Your task to perform on an android device: turn pop-ups off in chrome Image 0: 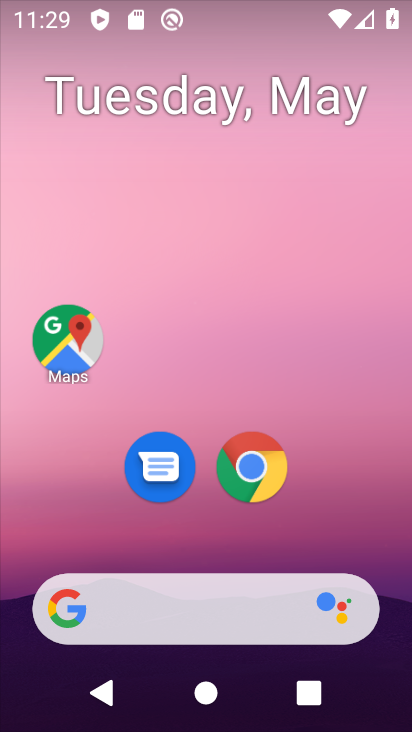
Step 0: drag from (191, 538) to (387, 78)
Your task to perform on an android device: turn pop-ups off in chrome Image 1: 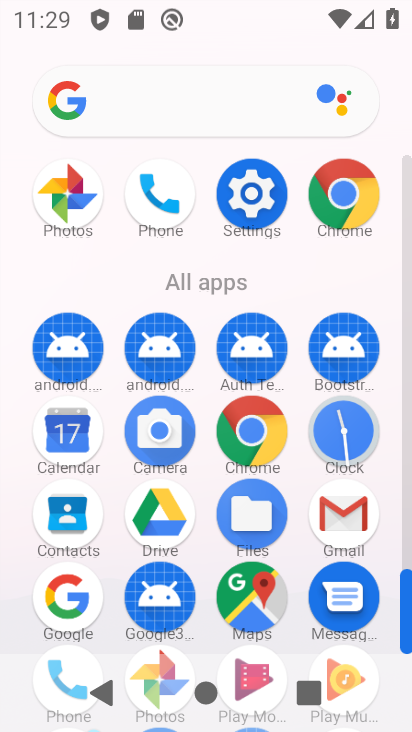
Step 1: click (246, 419)
Your task to perform on an android device: turn pop-ups off in chrome Image 2: 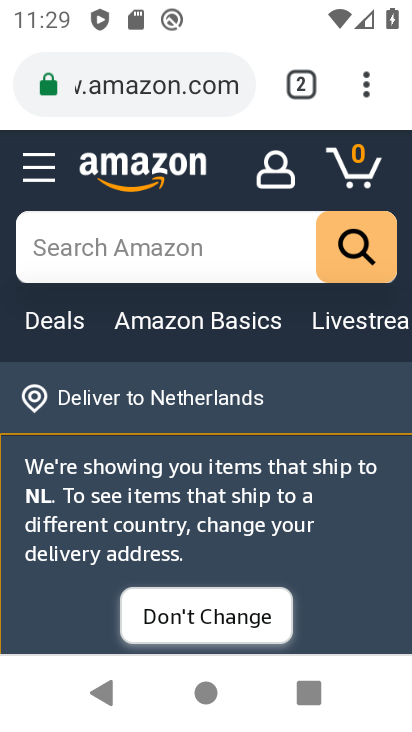
Step 2: click (357, 89)
Your task to perform on an android device: turn pop-ups off in chrome Image 3: 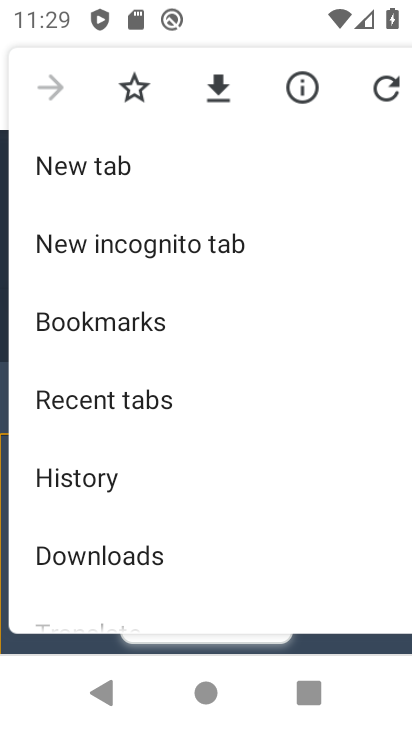
Step 3: drag from (149, 510) to (122, 148)
Your task to perform on an android device: turn pop-ups off in chrome Image 4: 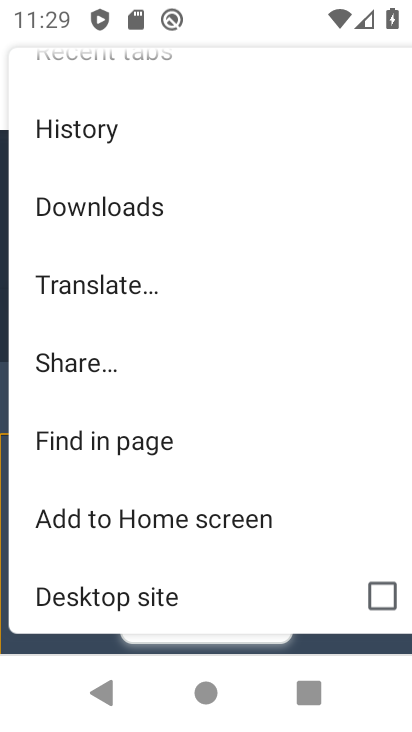
Step 4: drag from (112, 542) to (77, 129)
Your task to perform on an android device: turn pop-ups off in chrome Image 5: 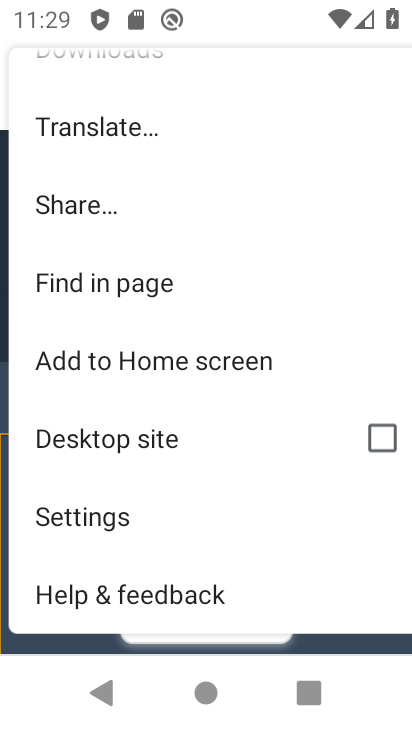
Step 5: click (73, 515)
Your task to perform on an android device: turn pop-ups off in chrome Image 6: 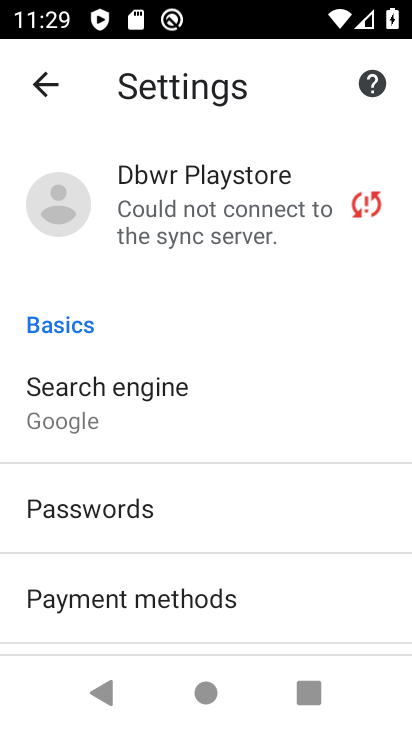
Step 6: drag from (202, 447) to (136, 51)
Your task to perform on an android device: turn pop-ups off in chrome Image 7: 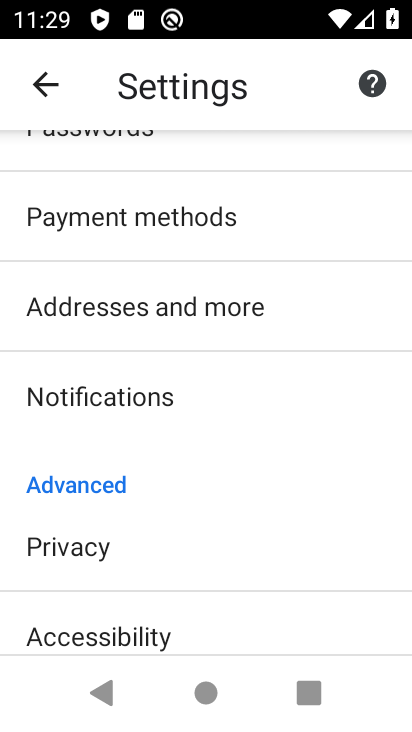
Step 7: drag from (137, 534) to (100, 200)
Your task to perform on an android device: turn pop-ups off in chrome Image 8: 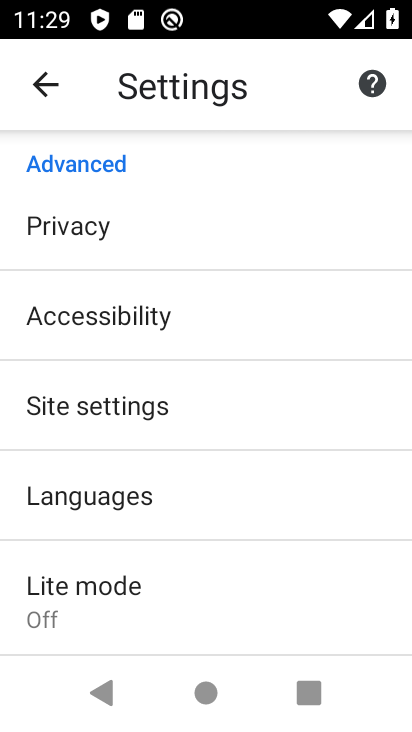
Step 8: click (94, 413)
Your task to perform on an android device: turn pop-ups off in chrome Image 9: 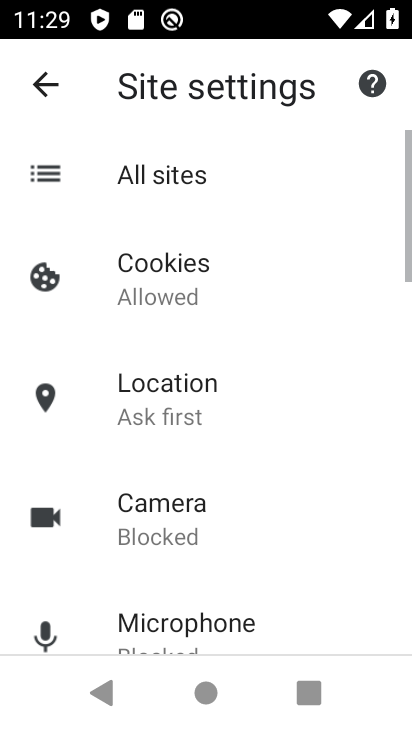
Step 9: drag from (209, 506) to (219, 209)
Your task to perform on an android device: turn pop-ups off in chrome Image 10: 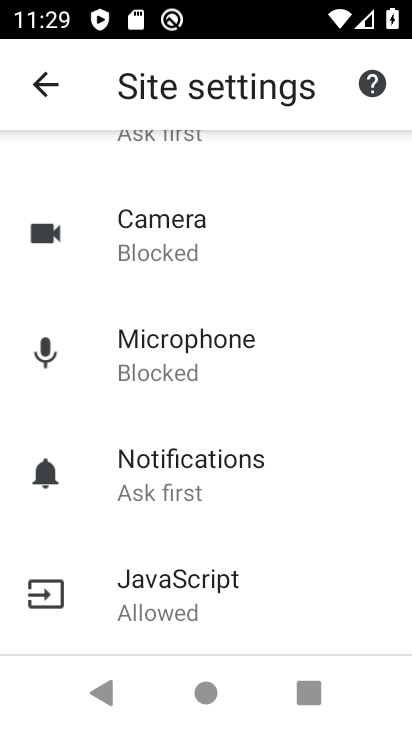
Step 10: drag from (211, 516) to (182, 189)
Your task to perform on an android device: turn pop-ups off in chrome Image 11: 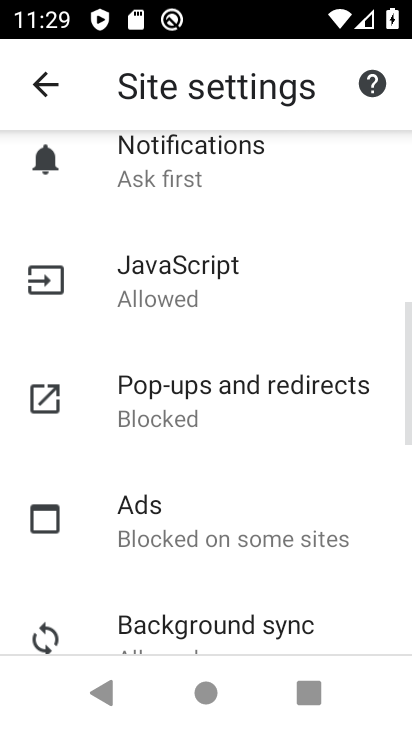
Step 11: click (141, 428)
Your task to perform on an android device: turn pop-ups off in chrome Image 12: 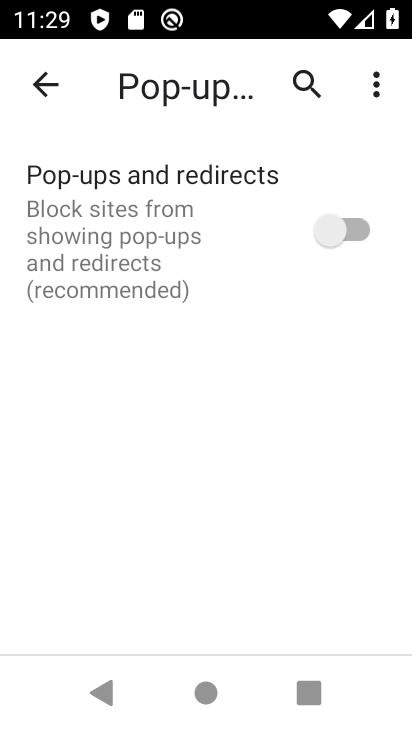
Step 12: task complete